Your task to perform on an android device: What's the weather going to be tomorrow? Image 0: 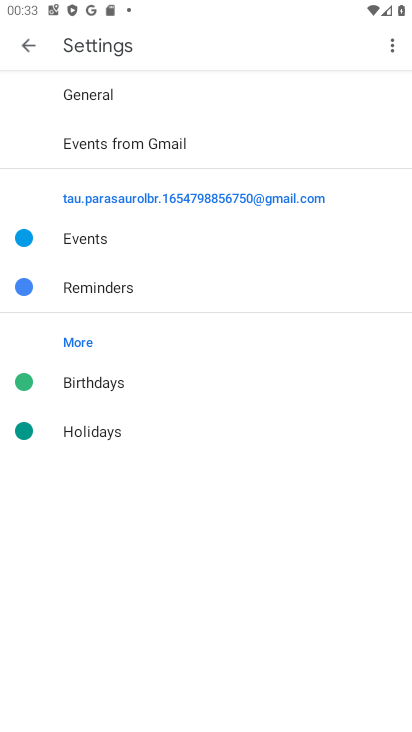
Step 0: click (31, 55)
Your task to perform on an android device: What's the weather going to be tomorrow? Image 1: 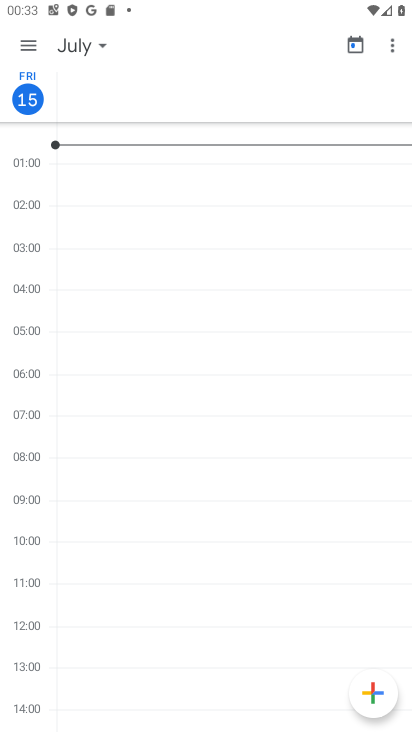
Step 1: click (31, 55)
Your task to perform on an android device: What's the weather going to be tomorrow? Image 2: 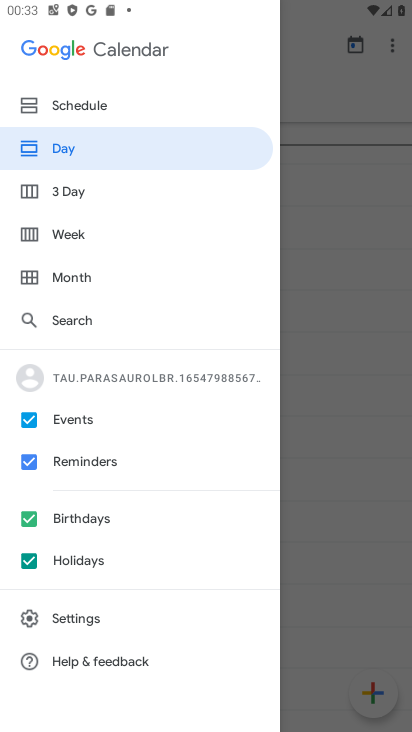
Step 2: press home button
Your task to perform on an android device: What's the weather going to be tomorrow? Image 3: 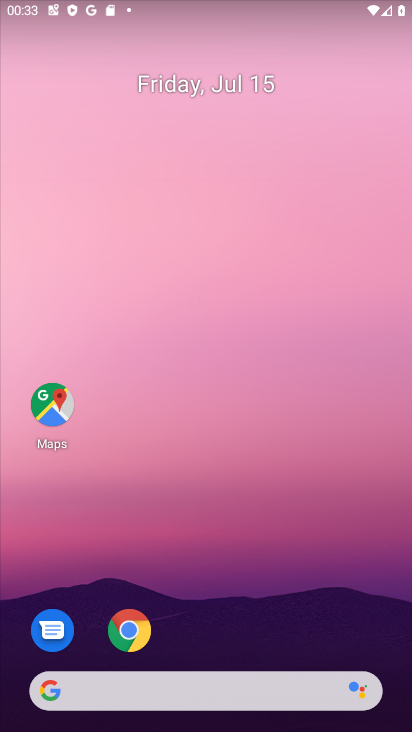
Step 3: click (196, 692)
Your task to perform on an android device: What's the weather going to be tomorrow? Image 4: 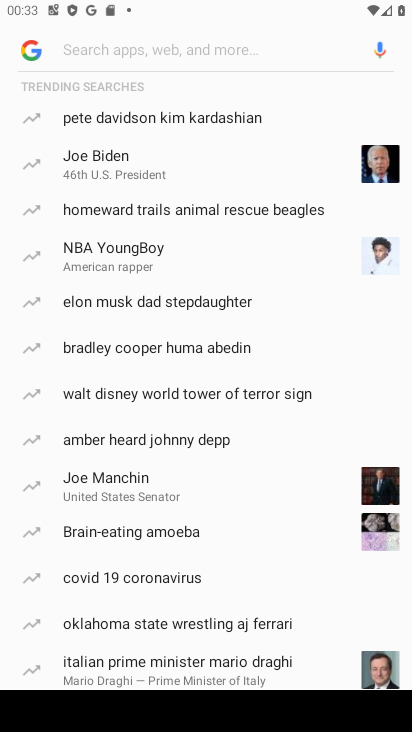
Step 4: type "weather"
Your task to perform on an android device: What's the weather going to be tomorrow? Image 5: 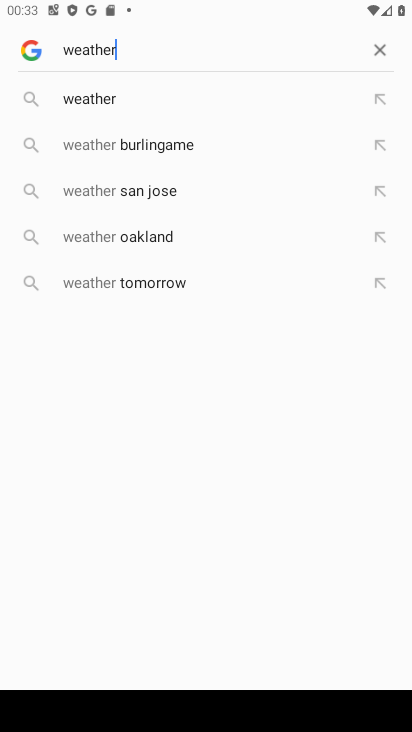
Step 5: task complete